Your task to perform on an android device: empty trash in the gmail app Image 0: 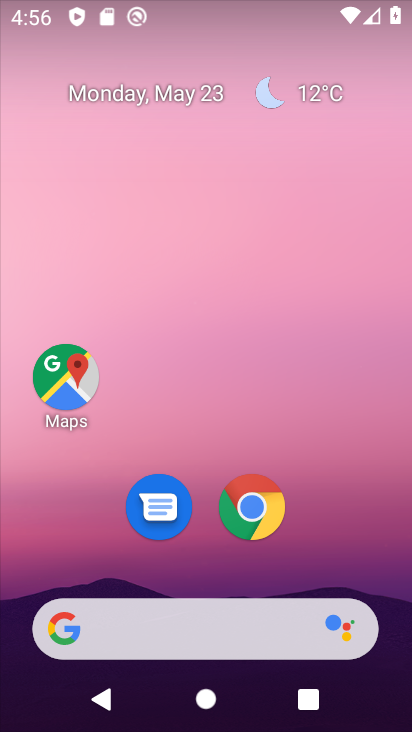
Step 0: drag from (61, 557) to (258, 147)
Your task to perform on an android device: empty trash in the gmail app Image 1: 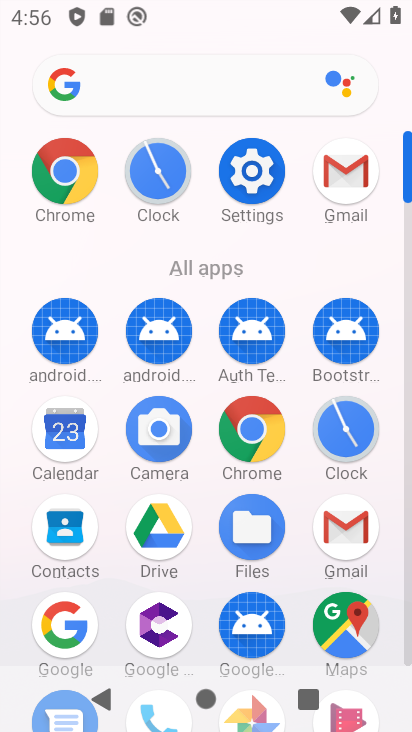
Step 1: click (346, 176)
Your task to perform on an android device: empty trash in the gmail app Image 2: 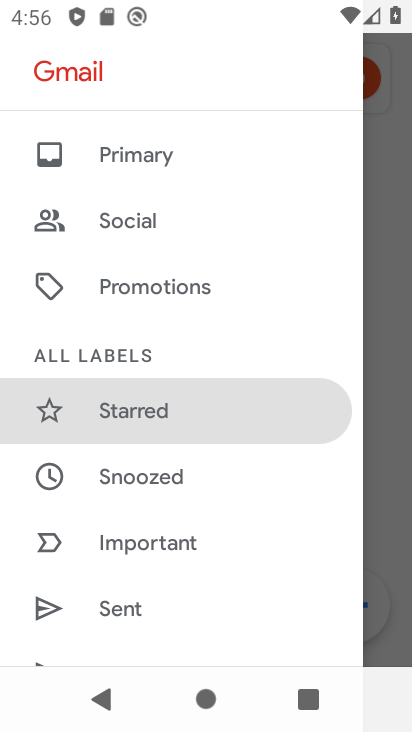
Step 2: drag from (59, 501) to (173, 213)
Your task to perform on an android device: empty trash in the gmail app Image 3: 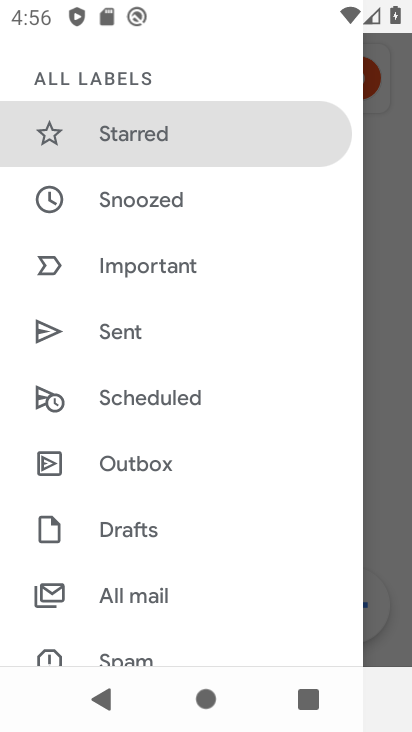
Step 3: drag from (86, 597) to (211, 202)
Your task to perform on an android device: empty trash in the gmail app Image 4: 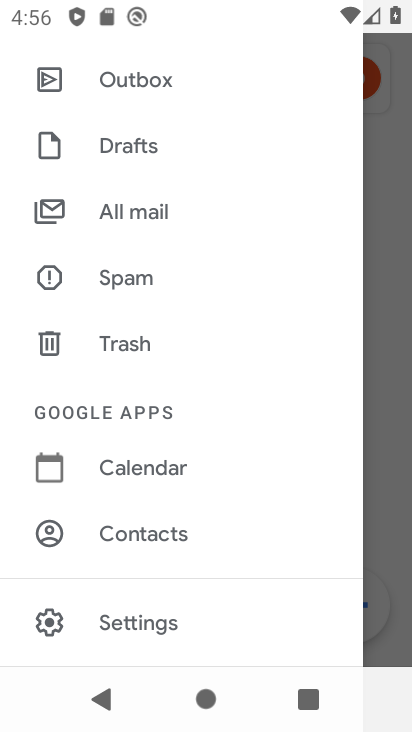
Step 4: click (120, 341)
Your task to perform on an android device: empty trash in the gmail app Image 5: 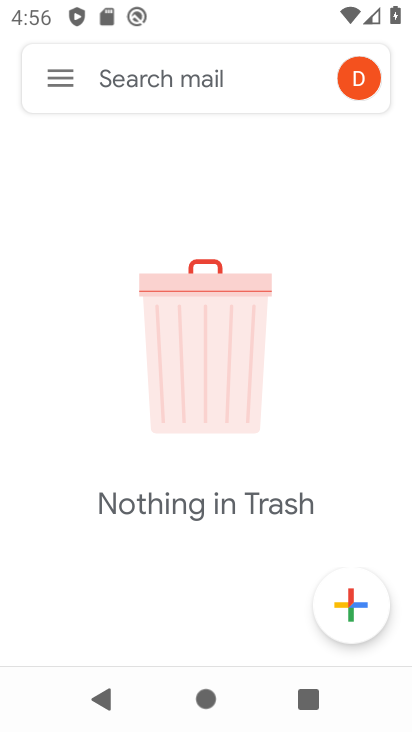
Step 5: task complete